Your task to perform on an android device: check out phone information Image 0: 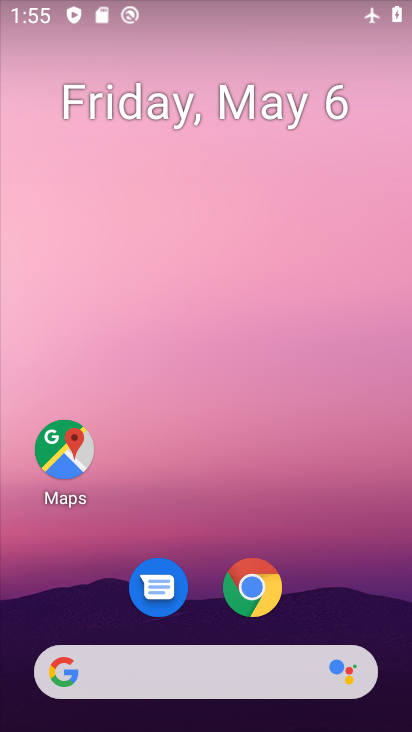
Step 0: drag from (327, 611) to (350, 0)
Your task to perform on an android device: check out phone information Image 1: 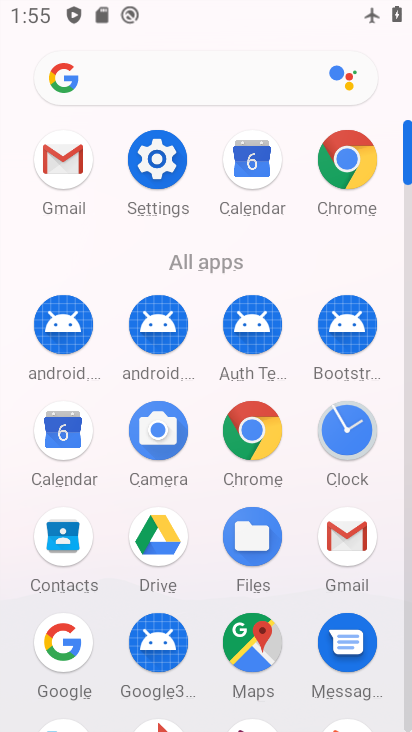
Step 1: click (159, 170)
Your task to perform on an android device: check out phone information Image 2: 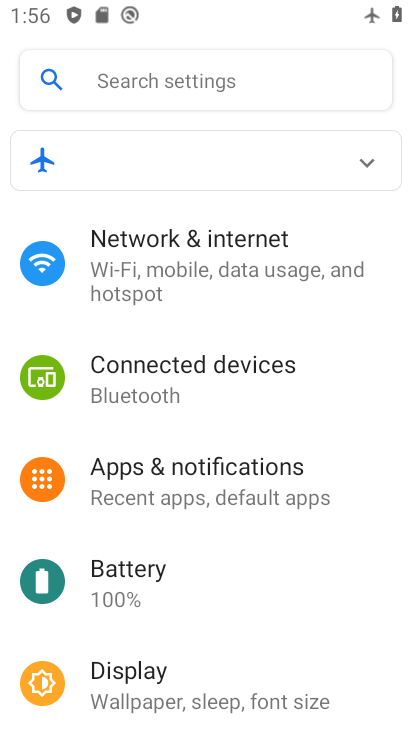
Step 2: drag from (250, 616) to (285, 374)
Your task to perform on an android device: check out phone information Image 3: 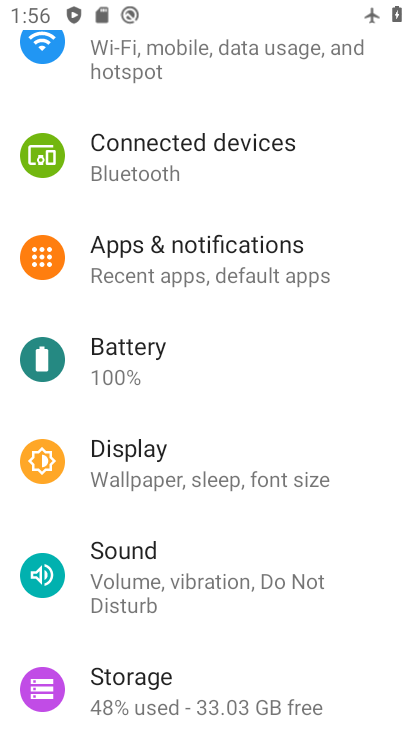
Step 3: drag from (285, 612) to (306, 467)
Your task to perform on an android device: check out phone information Image 4: 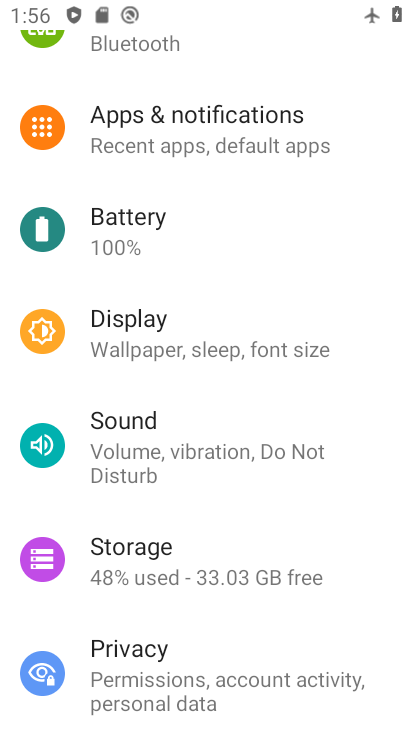
Step 4: drag from (267, 660) to (283, 434)
Your task to perform on an android device: check out phone information Image 5: 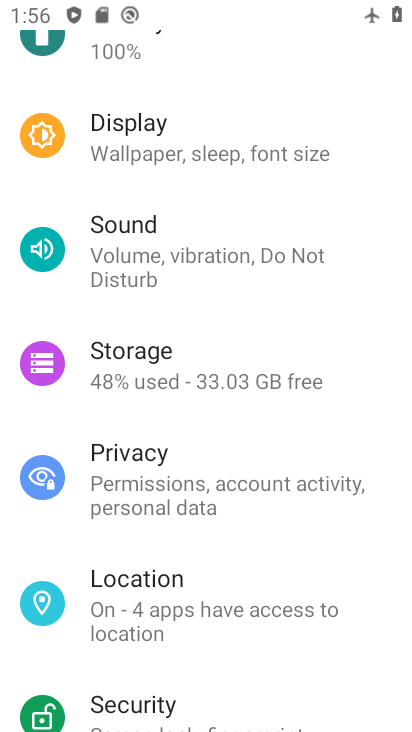
Step 5: drag from (265, 626) to (262, 457)
Your task to perform on an android device: check out phone information Image 6: 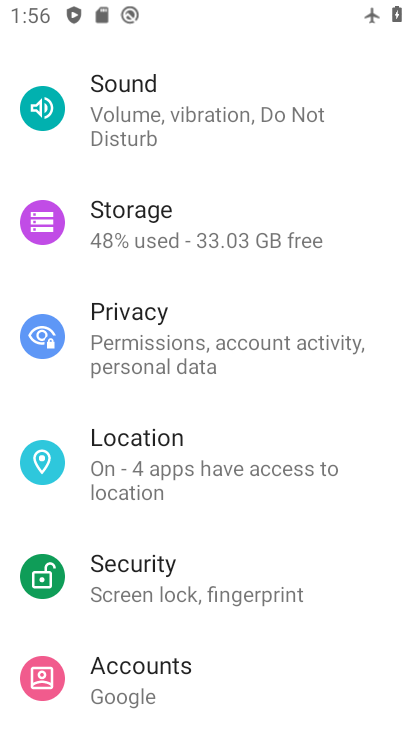
Step 6: drag from (226, 655) to (234, 494)
Your task to perform on an android device: check out phone information Image 7: 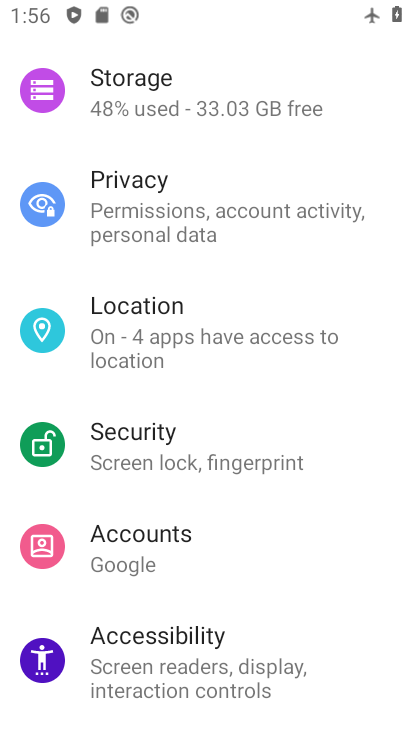
Step 7: drag from (235, 692) to (240, 564)
Your task to perform on an android device: check out phone information Image 8: 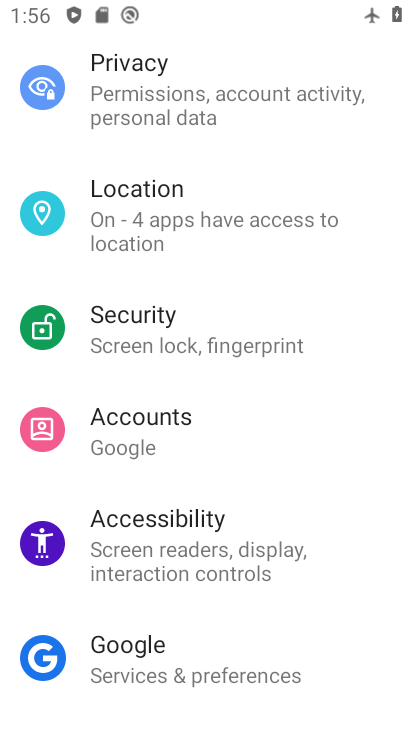
Step 8: drag from (255, 670) to (277, 541)
Your task to perform on an android device: check out phone information Image 9: 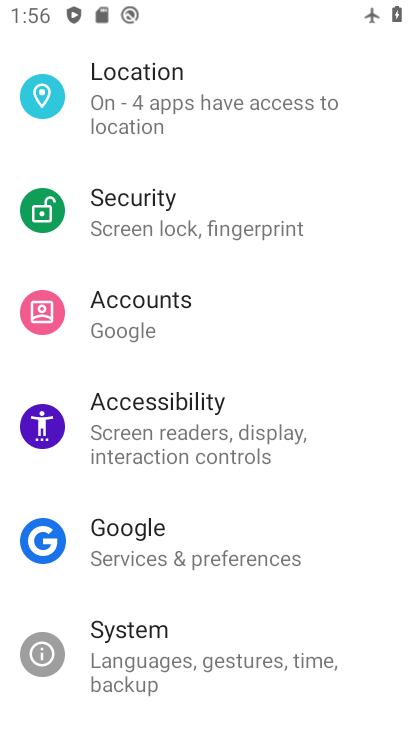
Step 9: drag from (268, 658) to (284, 447)
Your task to perform on an android device: check out phone information Image 10: 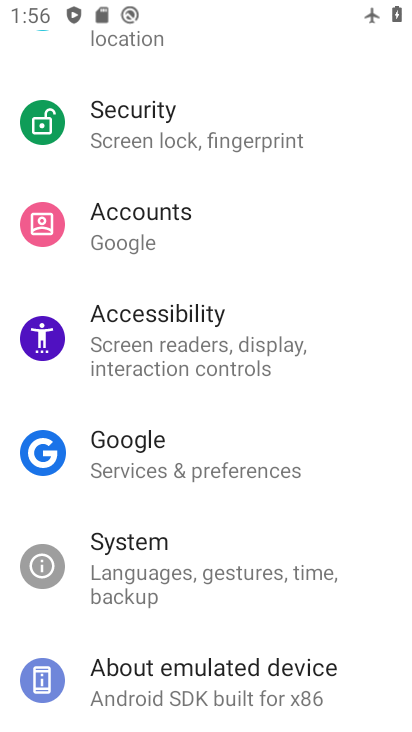
Step 10: click (260, 665)
Your task to perform on an android device: check out phone information Image 11: 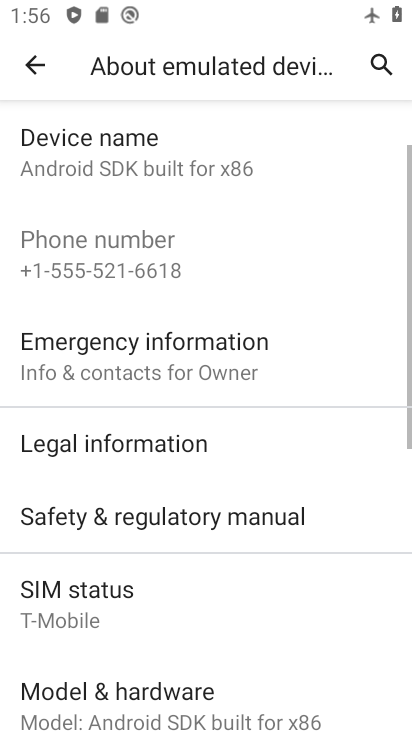
Step 11: task complete